Your task to perform on an android device: turn on javascript in the chrome app Image 0: 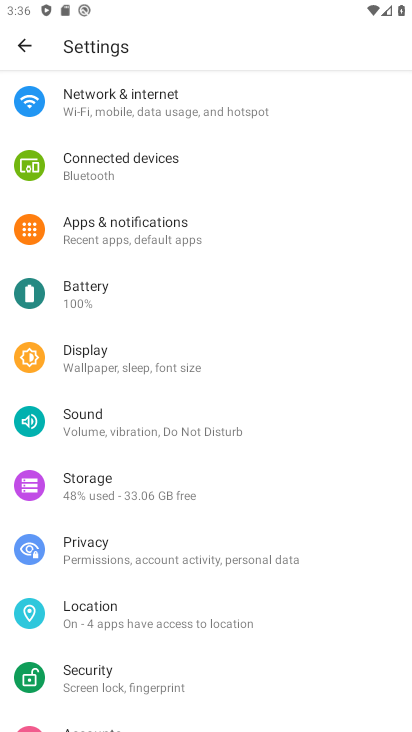
Step 0: press home button
Your task to perform on an android device: turn on javascript in the chrome app Image 1: 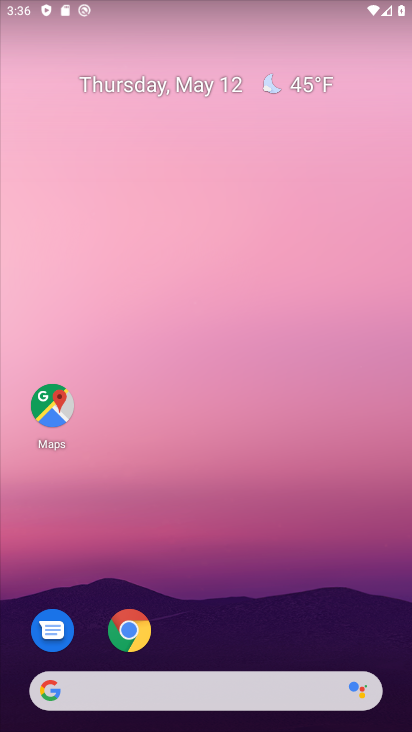
Step 1: drag from (226, 545) to (299, 72)
Your task to perform on an android device: turn on javascript in the chrome app Image 2: 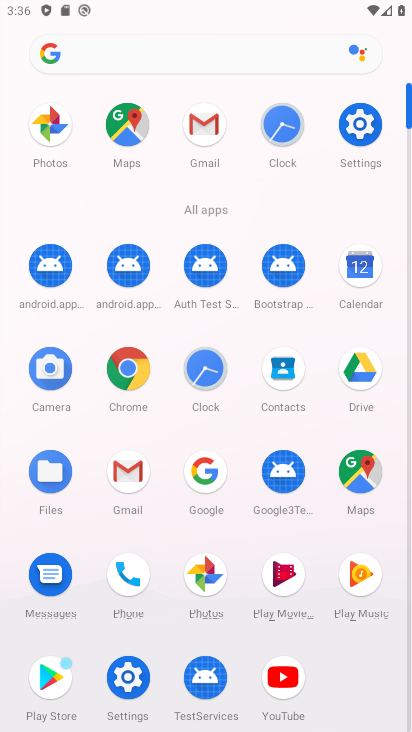
Step 2: click (126, 371)
Your task to perform on an android device: turn on javascript in the chrome app Image 3: 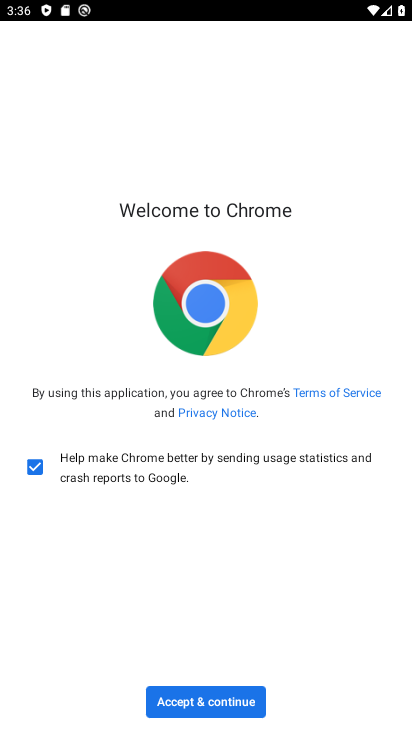
Step 3: click (185, 715)
Your task to perform on an android device: turn on javascript in the chrome app Image 4: 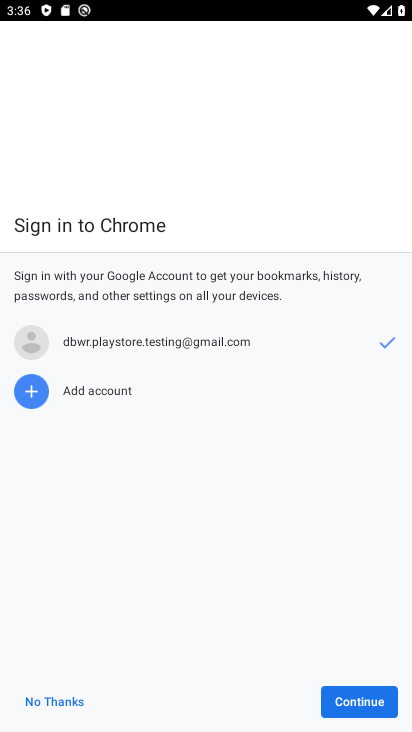
Step 4: click (366, 706)
Your task to perform on an android device: turn on javascript in the chrome app Image 5: 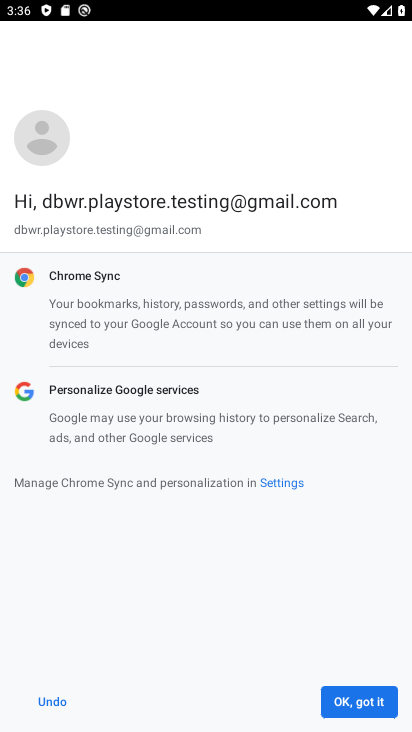
Step 5: click (363, 703)
Your task to perform on an android device: turn on javascript in the chrome app Image 6: 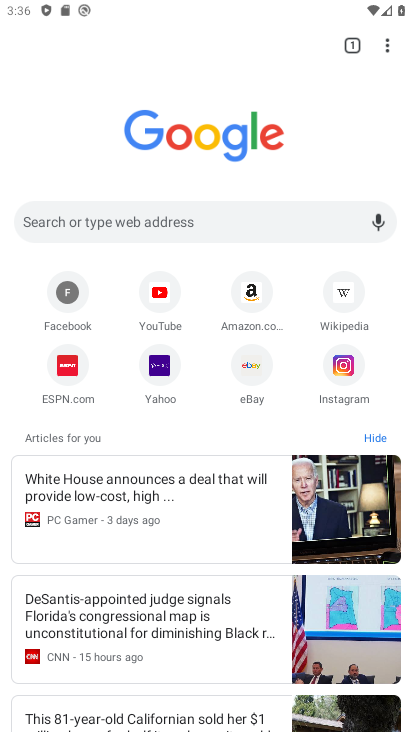
Step 6: click (395, 40)
Your task to perform on an android device: turn on javascript in the chrome app Image 7: 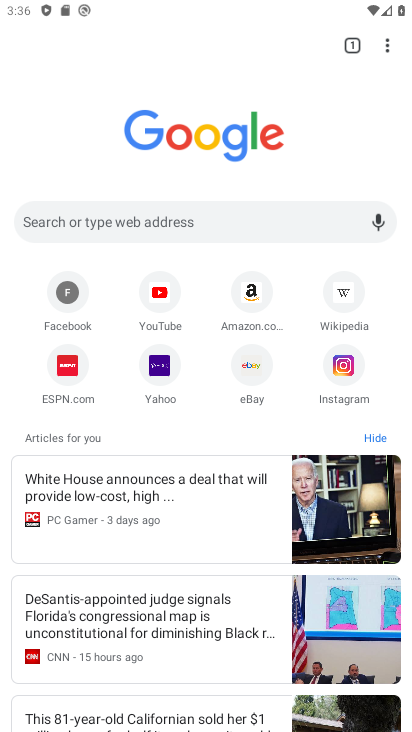
Step 7: click (395, 40)
Your task to perform on an android device: turn on javascript in the chrome app Image 8: 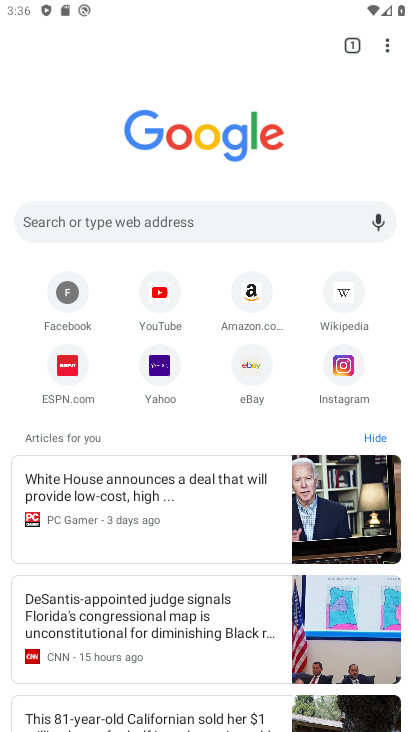
Step 8: click (398, 58)
Your task to perform on an android device: turn on javascript in the chrome app Image 9: 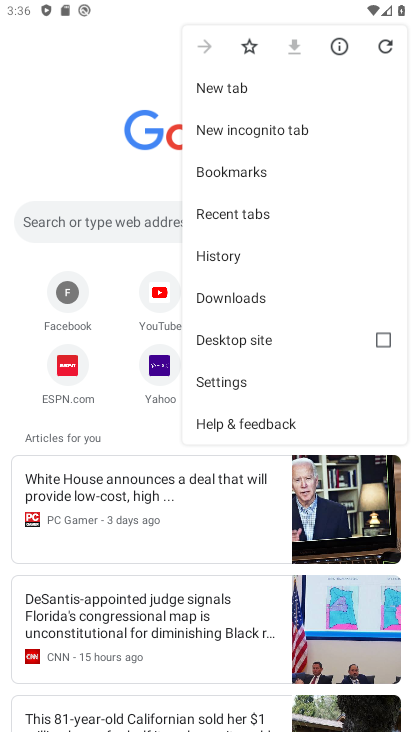
Step 9: click (234, 386)
Your task to perform on an android device: turn on javascript in the chrome app Image 10: 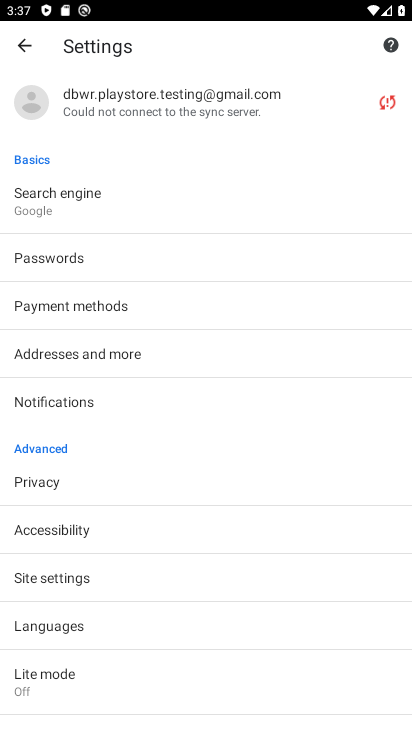
Step 10: click (81, 584)
Your task to perform on an android device: turn on javascript in the chrome app Image 11: 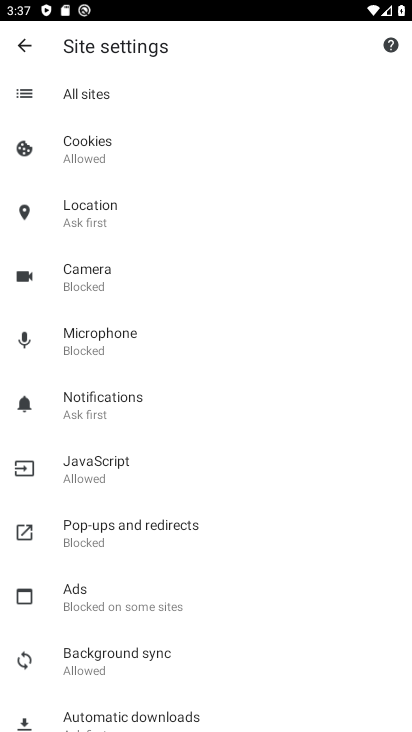
Step 11: click (122, 468)
Your task to perform on an android device: turn on javascript in the chrome app Image 12: 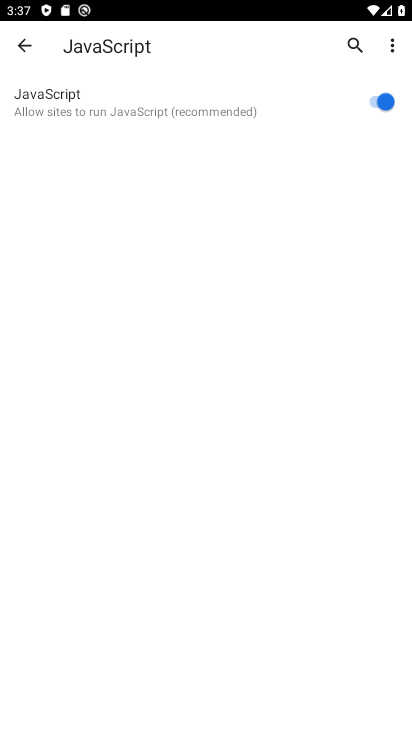
Step 12: task complete